Your task to perform on an android device: Open the map Image 0: 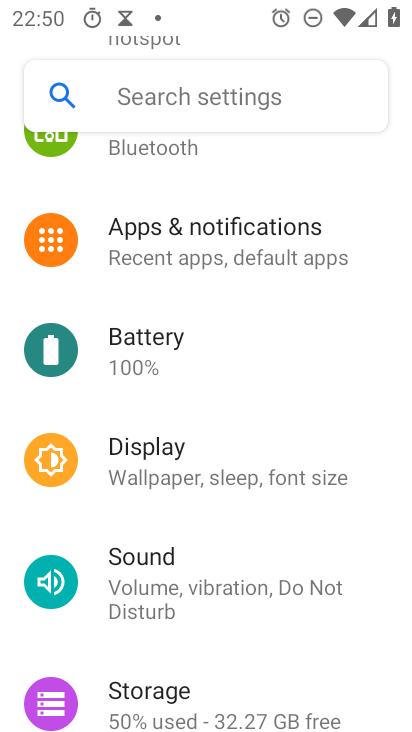
Step 0: press home button
Your task to perform on an android device: Open the map Image 1: 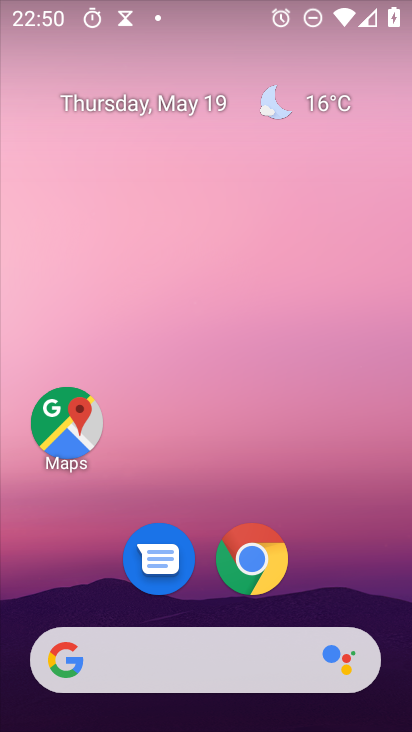
Step 1: drag from (213, 727) to (213, 94)
Your task to perform on an android device: Open the map Image 2: 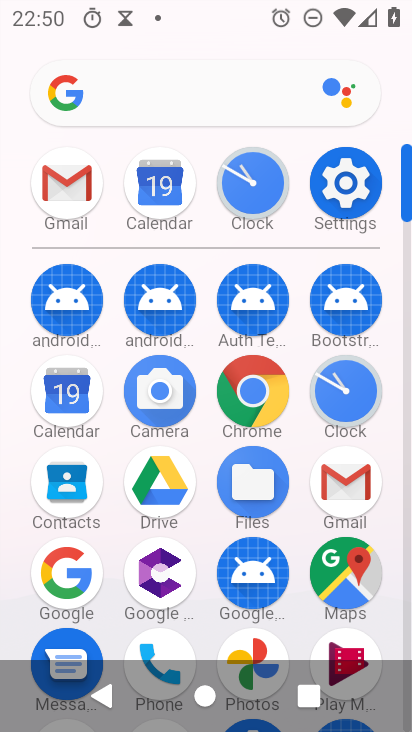
Step 2: click (339, 563)
Your task to perform on an android device: Open the map Image 3: 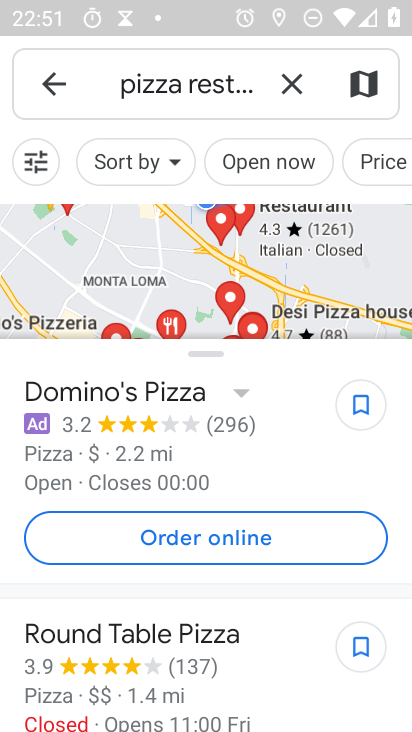
Step 3: task complete